Your task to perform on an android device: toggle translation in the chrome app Image 0: 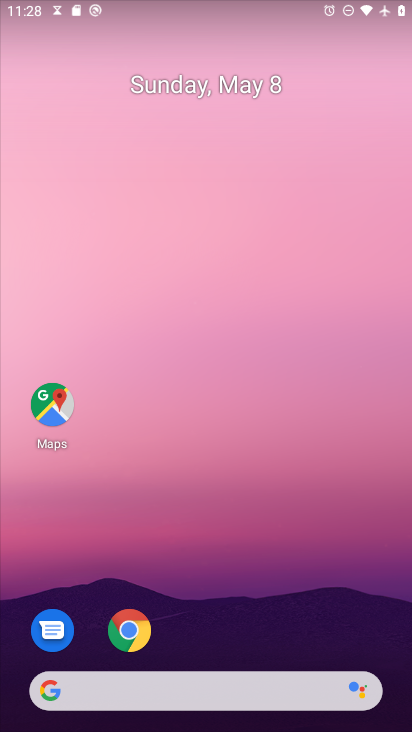
Step 0: click (132, 633)
Your task to perform on an android device: toggle translation in the chrome app Image 1: 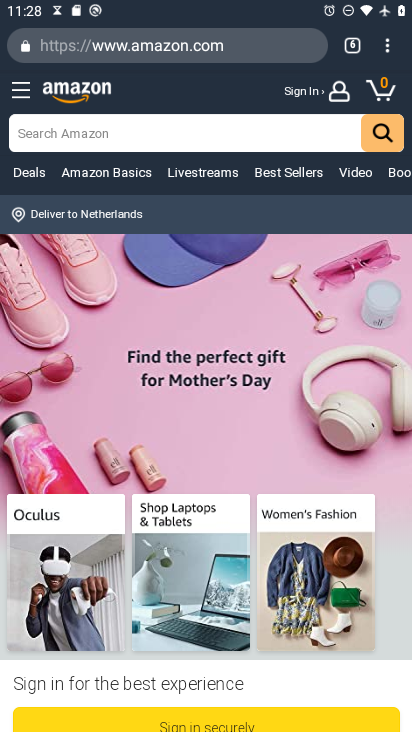
Step 1: drag from (390, 45) to (249, 549)
Your task to perform on an android device: toggle translation in the chrome app Image 2: 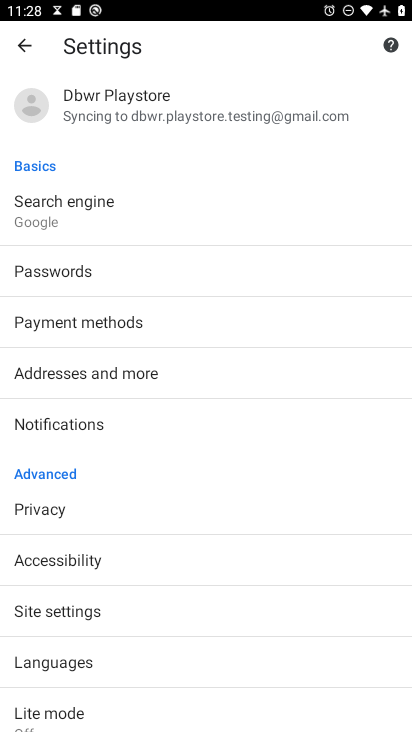
Step 2: click (49, 656)
Your task to perform on an android device: toggle translation in the chrome app Image 3: 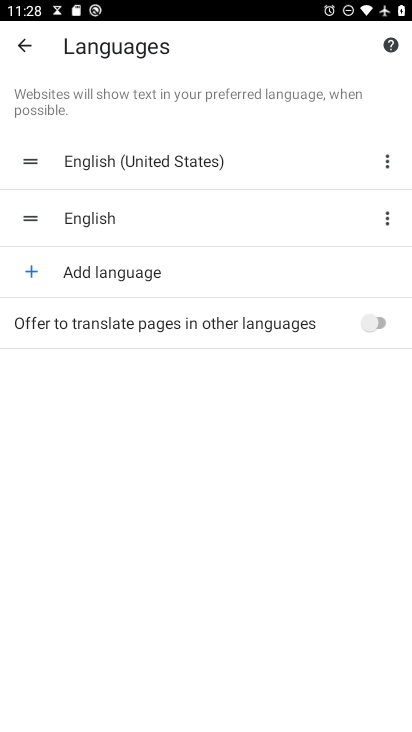
Step 3: click (381, 322)
Your task to perform on an android device: toggle translation in the chrome app Image 4: 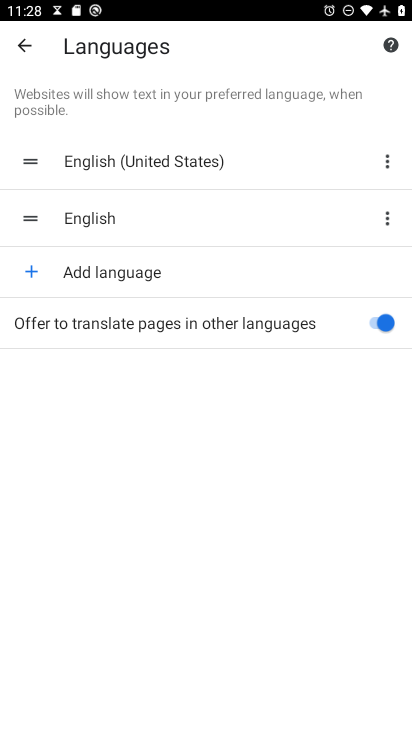
Step 4: task complete